Your task to perform on an android device: Open Youtube and go to "Your channel" Image 0: 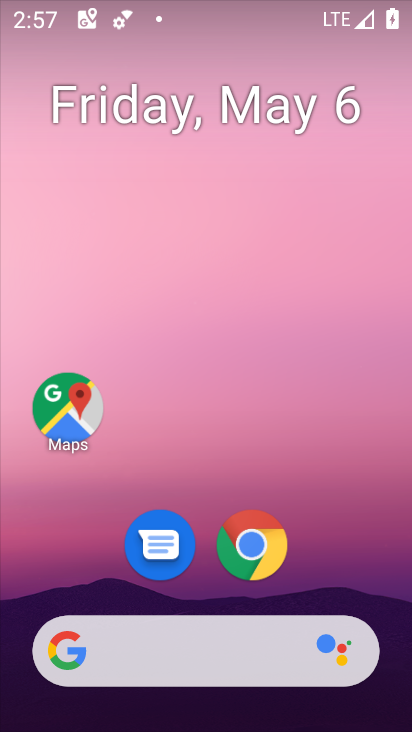
Step 0: drag from (386, 619) to (327, 153)
Your task to perform on an android device: Open Youtube and go to "Your channel" Image 1: 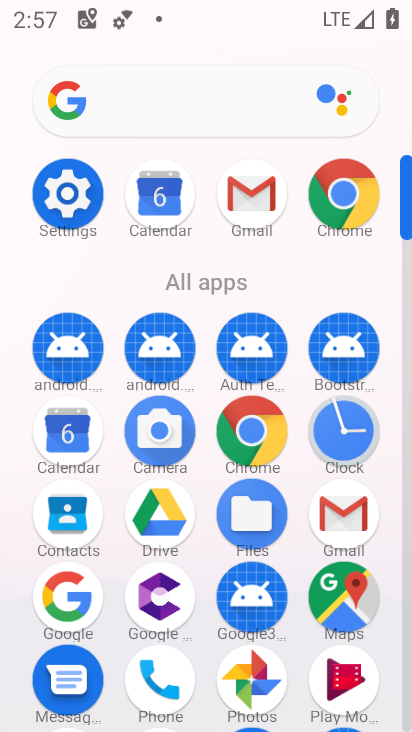
Step 1: drag from (405, 162) to (406, 39)
Your task to perform on an android device: Open Youtube and go to "Your channel" Image 2: 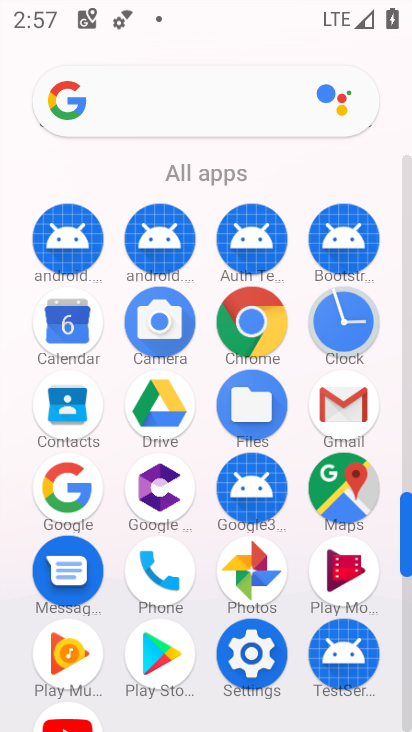
Step 2: click (71, 708)
Your task to perform on an android device: Open Youtube and go to "Your channel" Image 3: 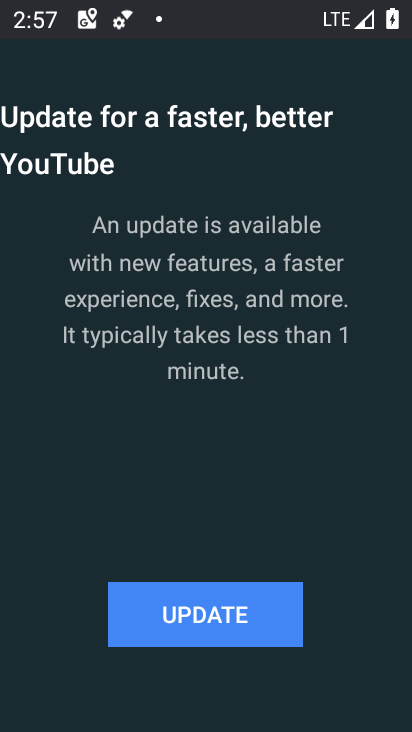
Step 3: click (251, 596)
Your task to perform on an android device: Open Youtube and go to "Your channel" Image 4: 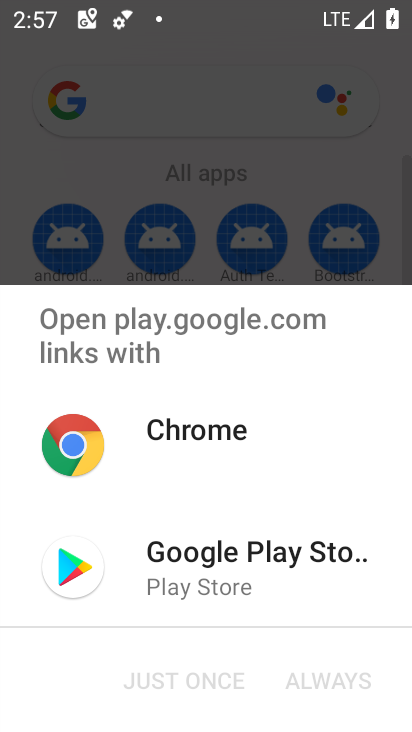
Step 4: click (170, 554)
Your task to perform on an android device: Open Youtube and go to "Your channel" Image 5: 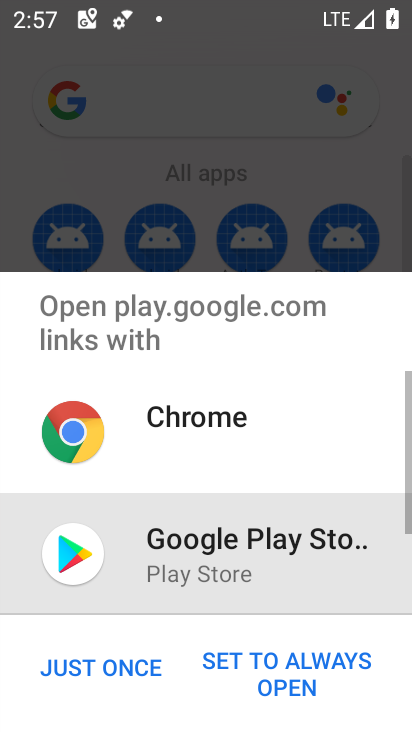
Step 5: click (136, 669)
Your task to perform on an android device: Open Youtube and go to "Your channel" Image 6: 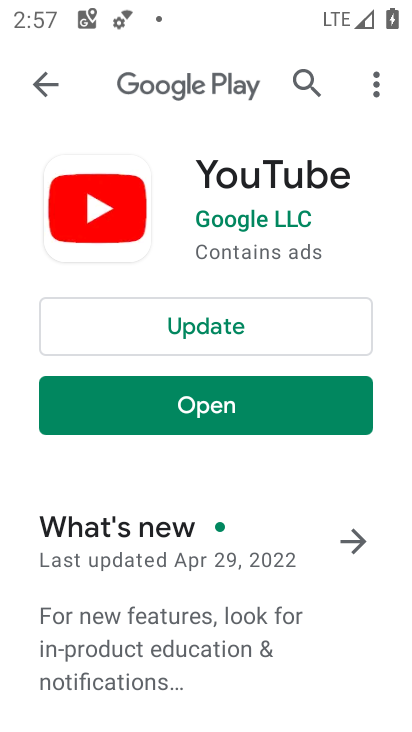
Step 6: click (155, 331)
Your task to perform on an android device: Open Youtube and go to "Your channel" Image 7: 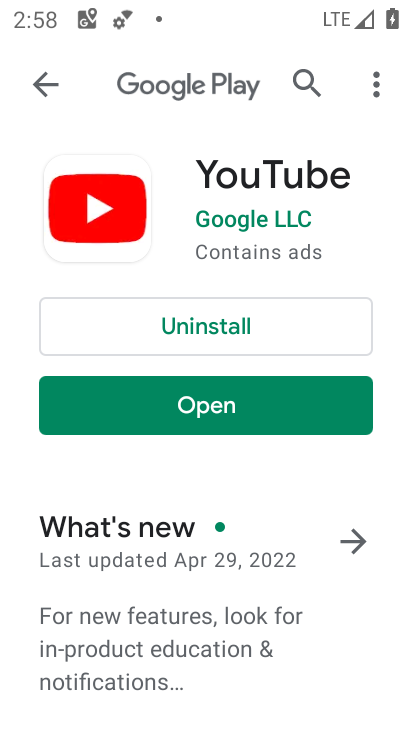
Step 7: click (226, 413)
Your task to perform on an android device: Open Youtube and go to "Your channel" Image 8: 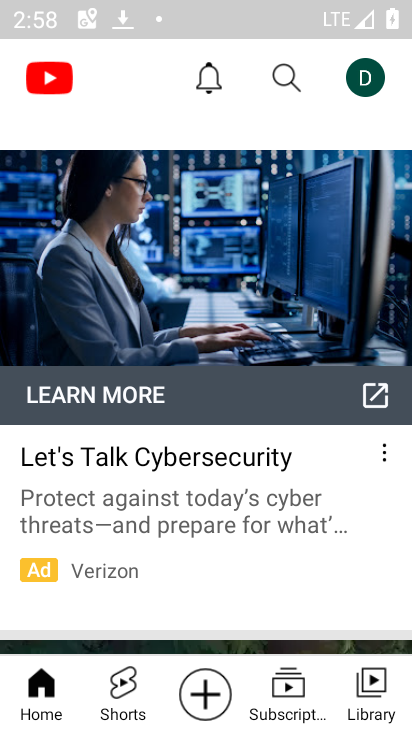
Step 8: click (372, 86)
Your task to perform on an android device: Open Youtube and go to "Your channel" Image 9: 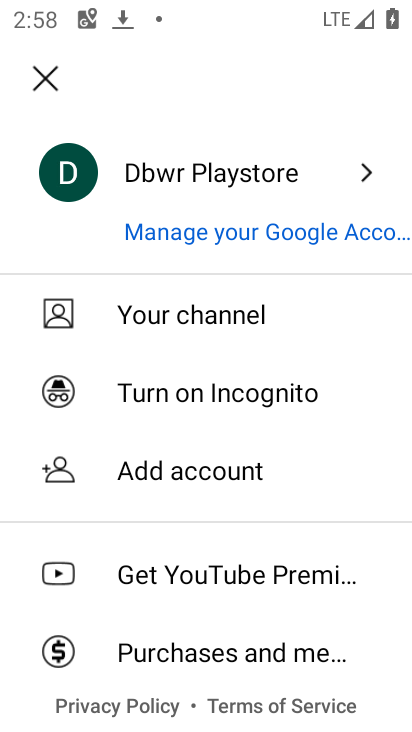
Step 9: click (225, 312)
Your task to perform on an android device: Open Youtube and go to "Your channel" Image 10: 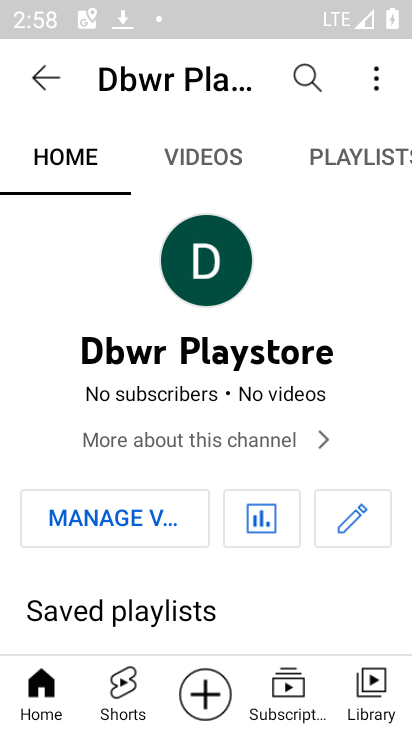
Step 10: task complete